Your task to perform on an android device: Show me the alarms in the clock app Image 0: 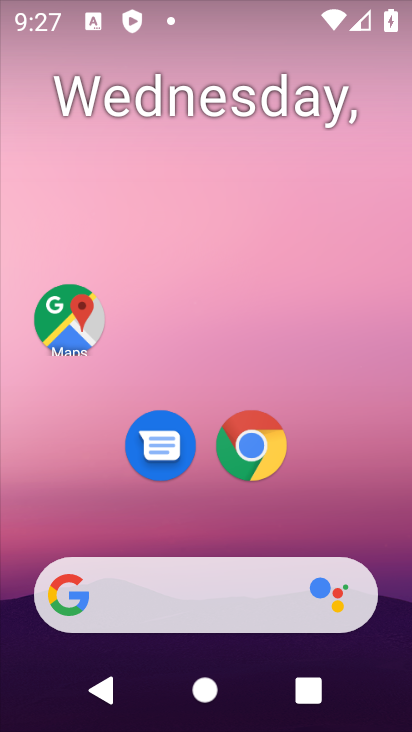
Step 0: drag from (369, 539) to (397, 173)
Your task to perform on an android device: Show me the alarms in the clock app Image 1: 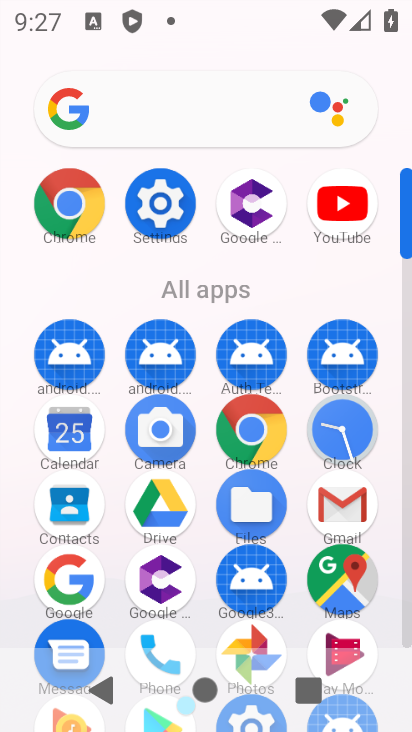
Step 1: click (341, 422)
Your task to perform on an android device: Show me the alarms in the clock app Image 2: 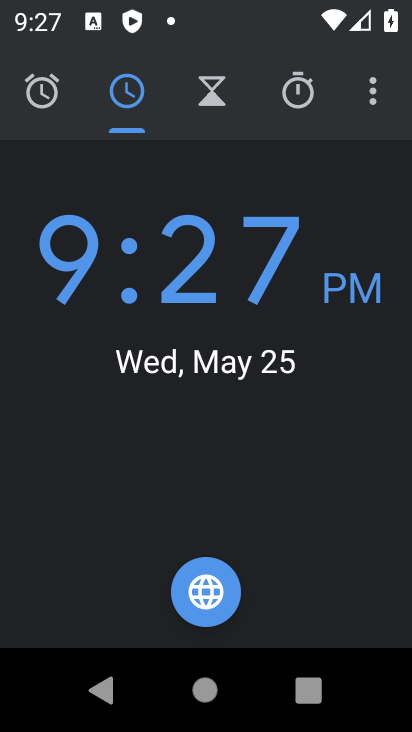
Step 2: click (50, 115)
Your task to perform on an android device: Show me the alarms in the clock app Image 3: 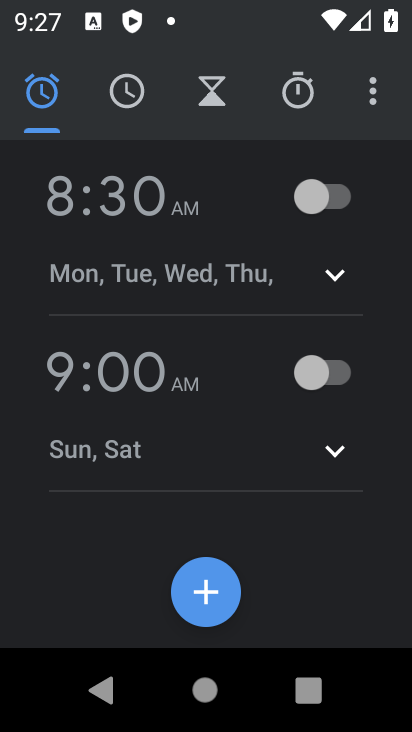
Step 3: task complete